Your task to perform on an android device: Search for seafood restaurants on Google Maps Image 0: 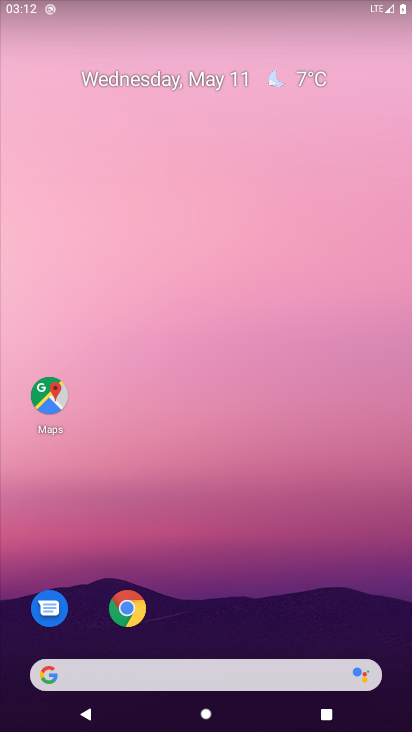
Step 0: click (47, 391)
Your task to perform on an android device: Search for seafood restaurants on Google Maps Image 1: 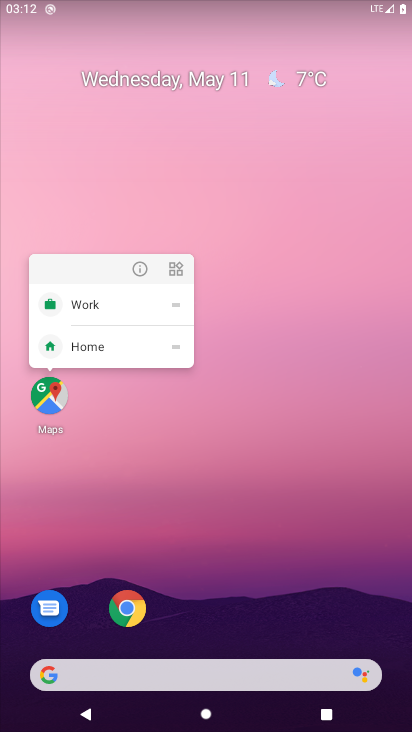
Step 1: click (48, 393)
Your task to perform on an android device: Search for seafood restaurants on Google Maps Image 2: 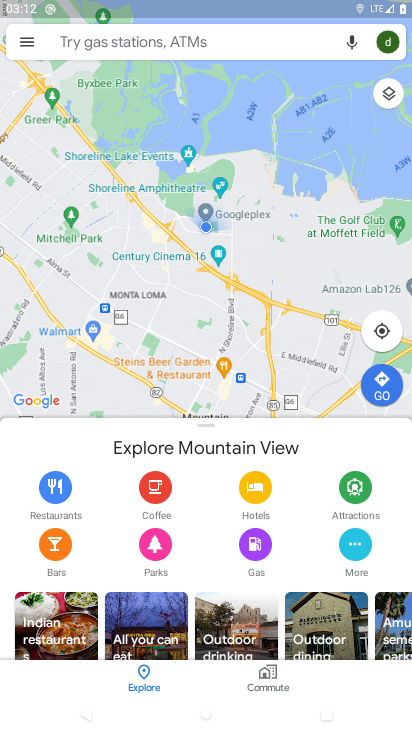
Step 2: click (128, 33)
Your task to perform on an android device: Search for seafood restaurants on Google Maps Image 3: 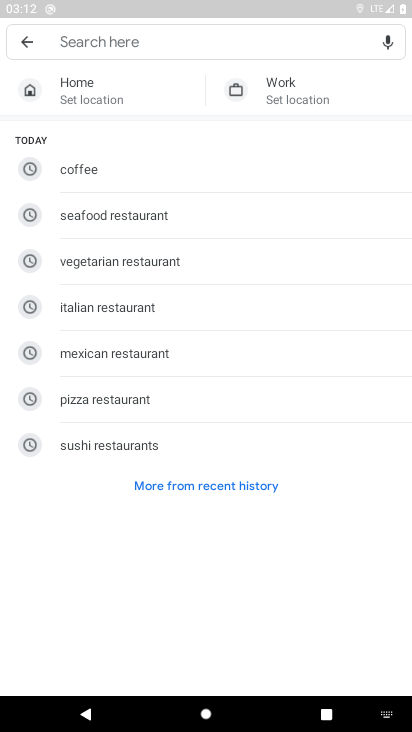
Step 3: type "seafood"
Your task to perform on an android device: Search for seafood restaurants on Google Maps Image 4: 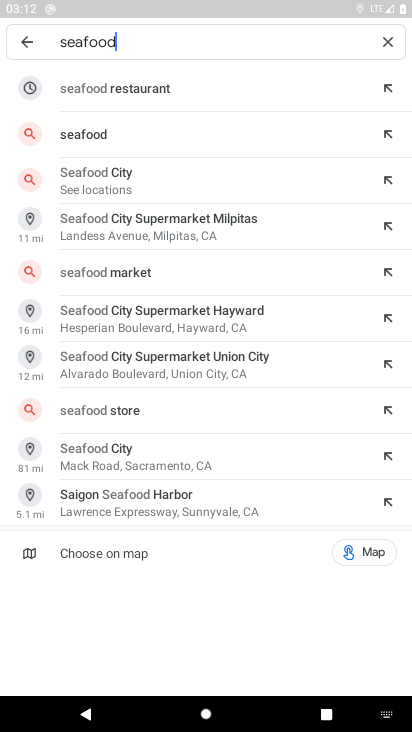
Step 4: click (157, 87)
Your task to perform on an android device: Search for seafood restaurants on Google Maps Image 5: 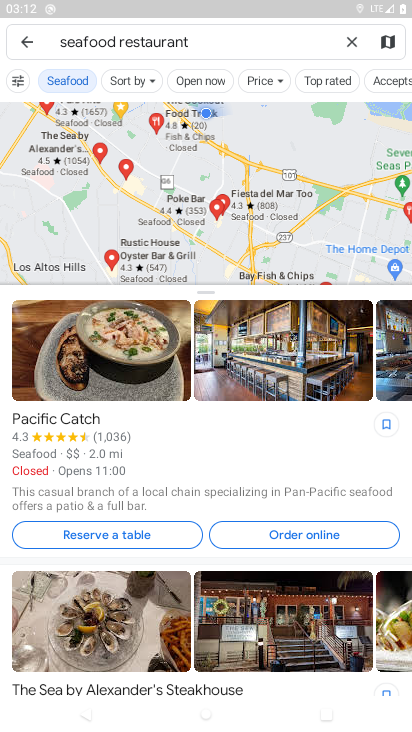
Step 5: task complete